Your task to perform on an android device: choose inbox layout in the gmail app Image 0: 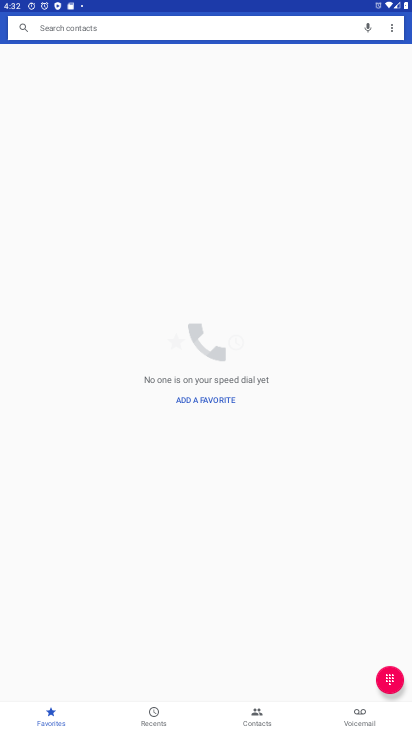
Step 0: press home button
Your task to perform on an android device: choose inbox layout in the gmail app Image 1: 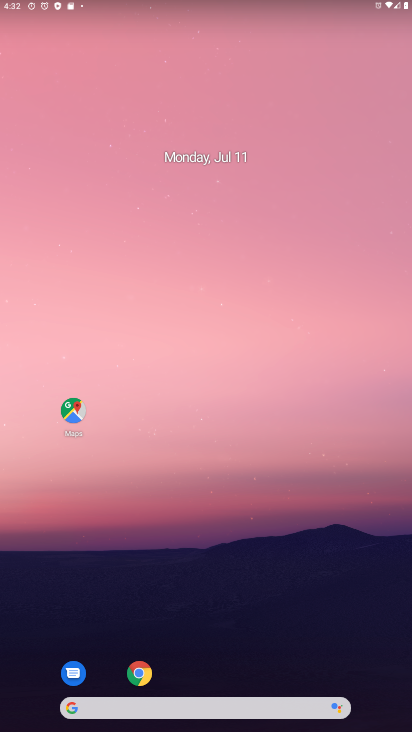
Step 1: drag from (310, 632) to (312, 41)
Your task to perform on an android device: choose inbox layout in the gmail app Image 2: 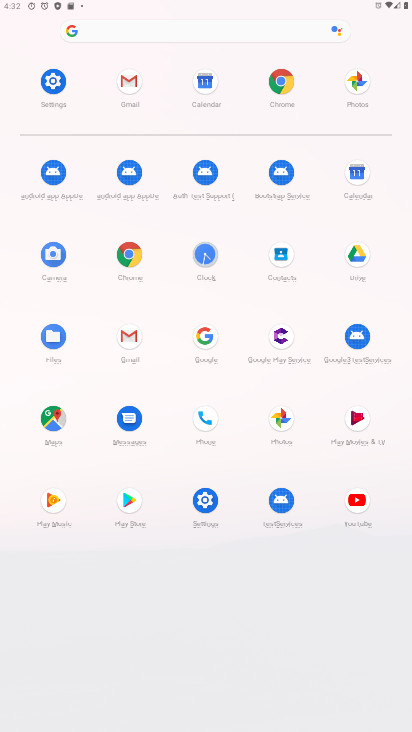
Step 2: click (130, 334)
Your task to perform on an android device: choose inbox layout in the gmail app Image 3: 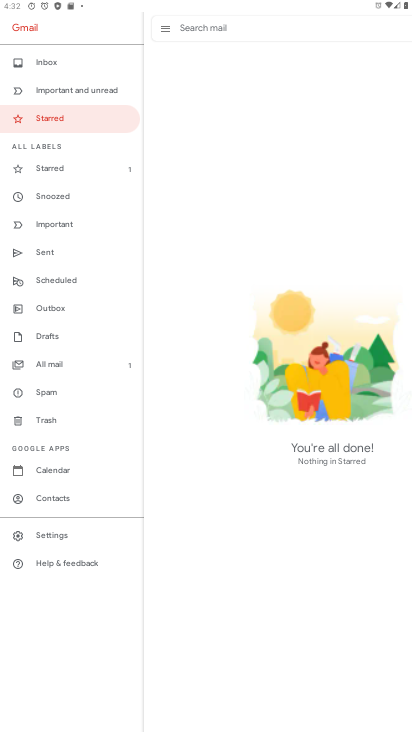
Step 3: click (39, 533)
Your task to perform on an android device: choose inbox layout in the gmail app Image 4: 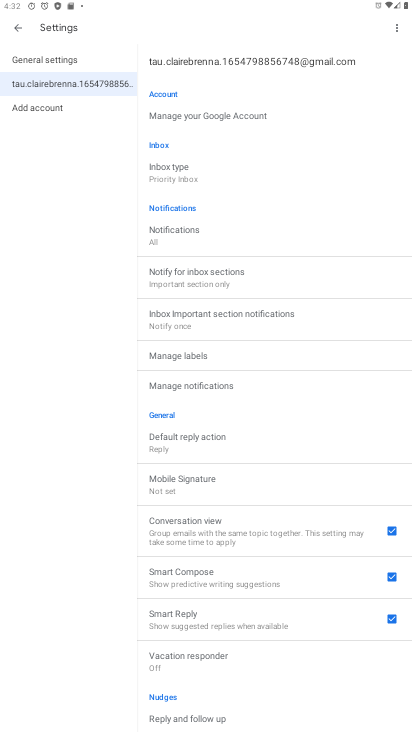
Step 4: click (180, 175)
Your task to perform on an android device: choose inbox layout in the gmail app Image 5: 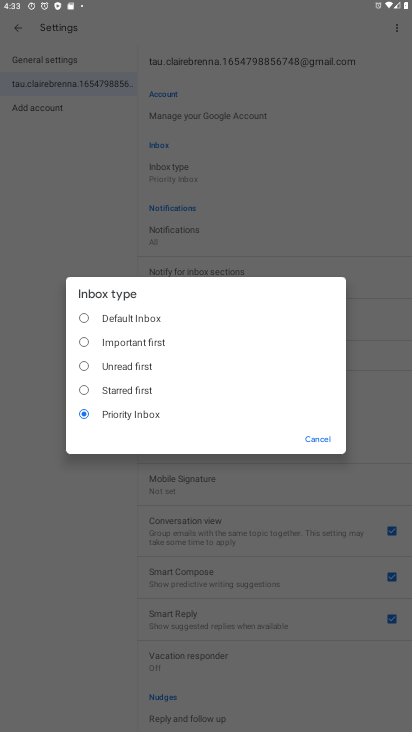
Step 5: click (139, 390)
Your task to perform on an android device: choose inbox layout in the gmail app Image 6: 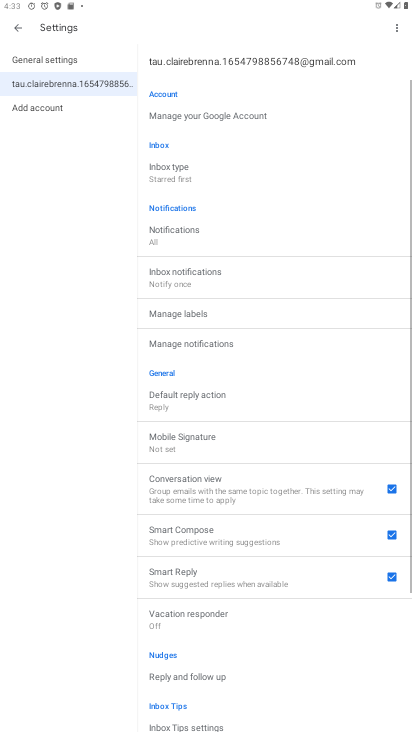
Step 6: task complete